Your task to perform on an android device: check google app version Image 0: 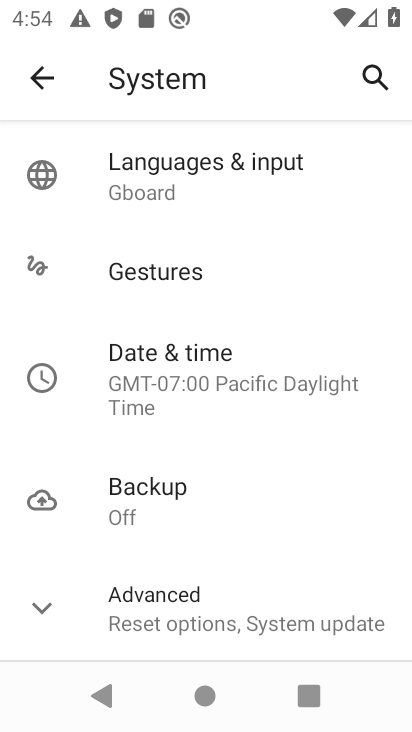
Step 0: click (27, 70)
Your task to perform on an android device: check google app version Image 1: 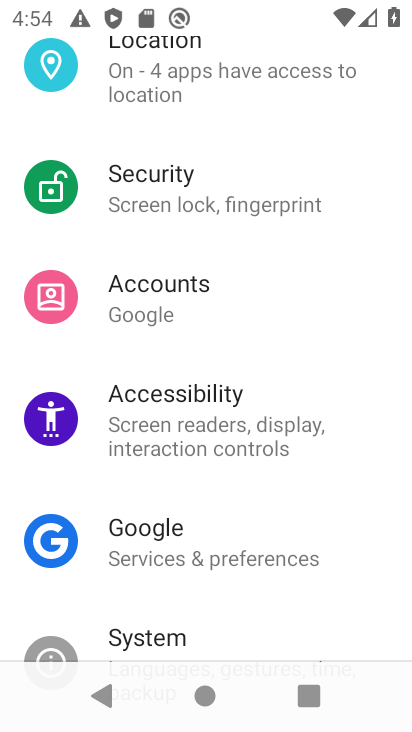
Step 1: click (190, 552)
Your task to perform on an android device: check google app version Image 2: 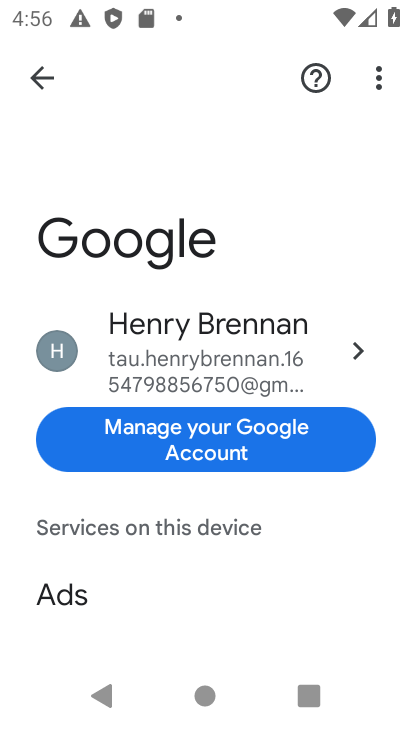
Step 2: task complete